Your task to perform on an android device: Open Reddit.com Image 0: 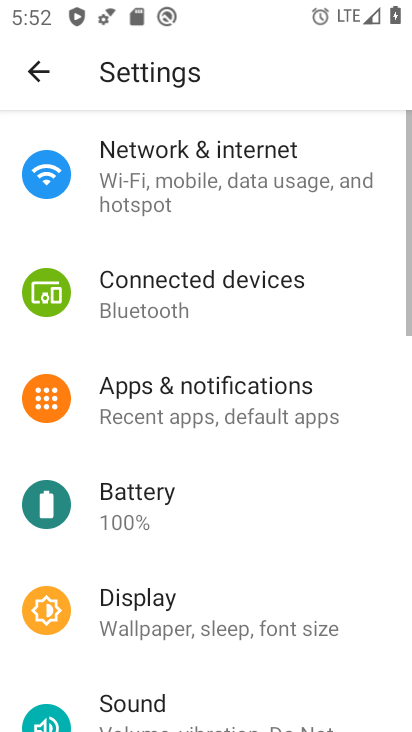
Step 0: press home button
Your task to perform on an android device: Open Reddit.com Image 1: 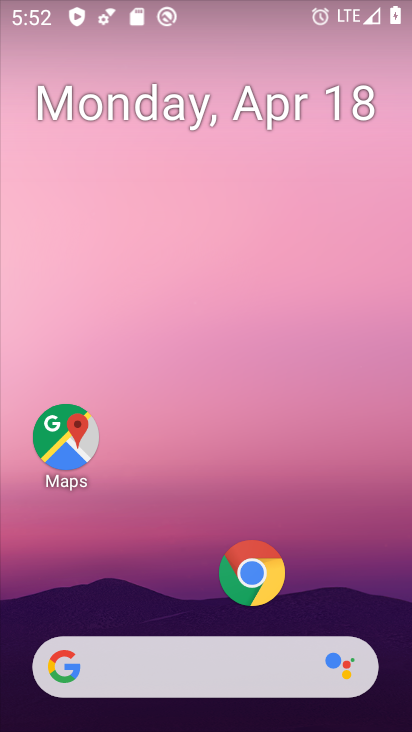
Step 1: click (262, 571)
Your task to perform on an android device: Open Reddit.com Image 2: 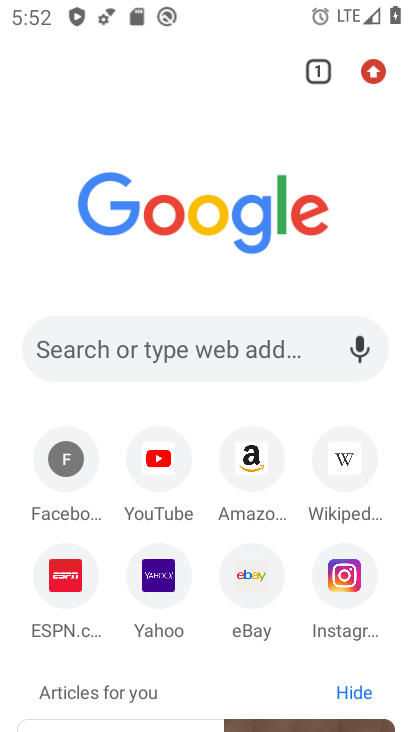
Step 2: click (157, 336)
Your task to perform on an android device: Open Reddit.com Image 3: 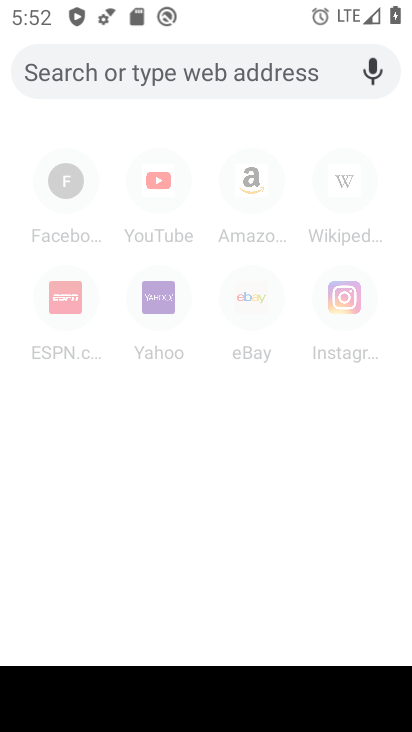
Step 3: type "reddit.com"
Your task to perform on an android device: Open Reddit.com Image 4: 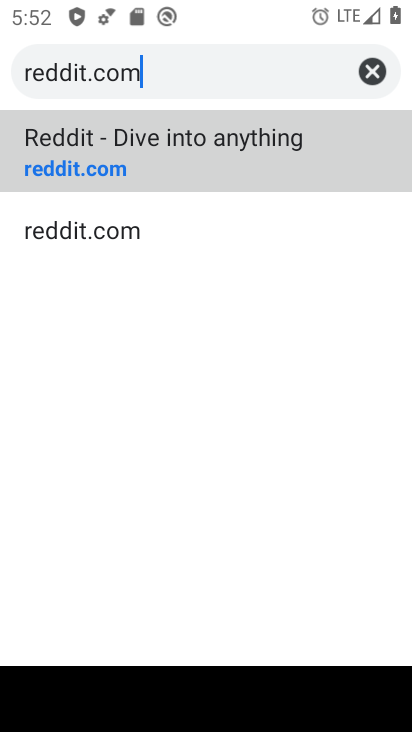
Step 4: click (119, 236)
Your task to perform on an android device: Open Reddit.com Image 5: 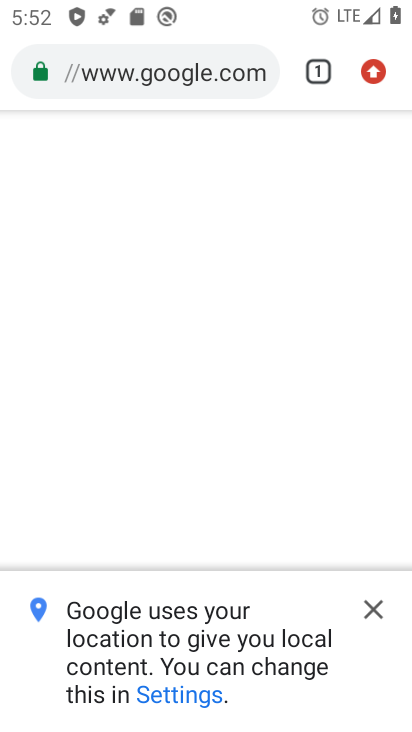
Step 5: click (370, 608)
Your task to perform on an android device: Open Reddit.com Image 6: 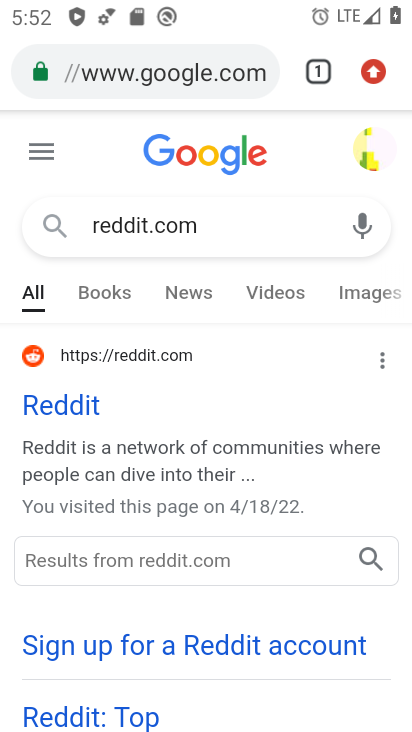
Step 6: task complete